Your task to perform on an android device: What's on the menu at IHOP? Image 0: 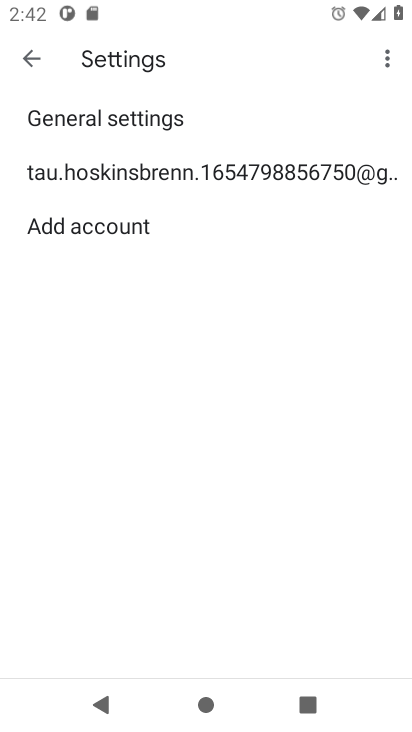
Step 0: press home button
Your task to perform on an android device: What's on the menu at IHOP? Image 1: 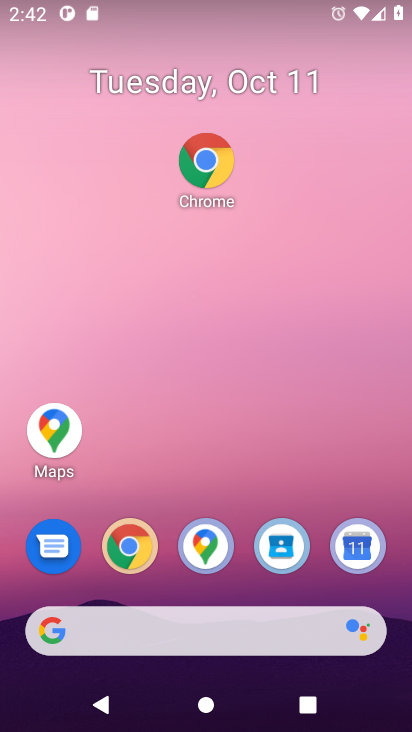
Step 1: click (212, 168)
Your task to perform on an android device: What's on the menu at IHOP? Image 2: 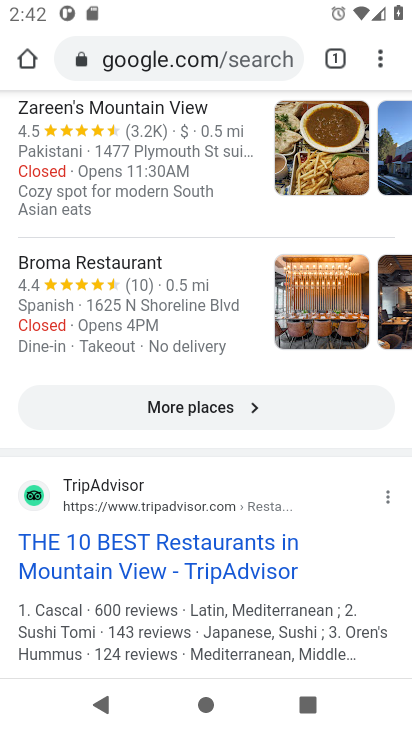
Step 2: click (210, 61)
Your task to perform on an android device: What's on the menu at IHOP? Image 3: 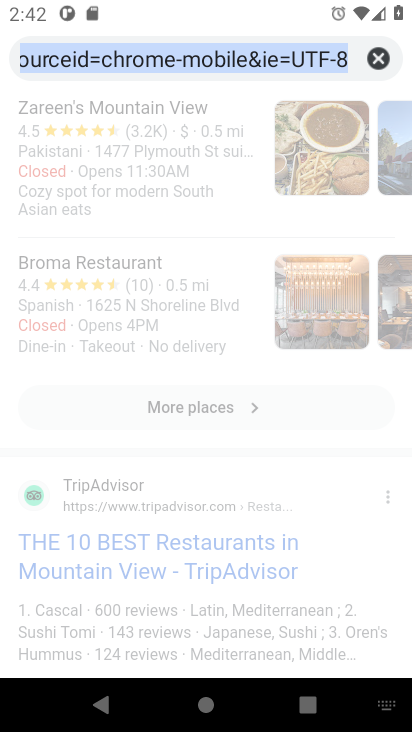
Step 3: type "IHOP"
Your task to perform on an android device: What's on the menu at IHOP? Image 4: 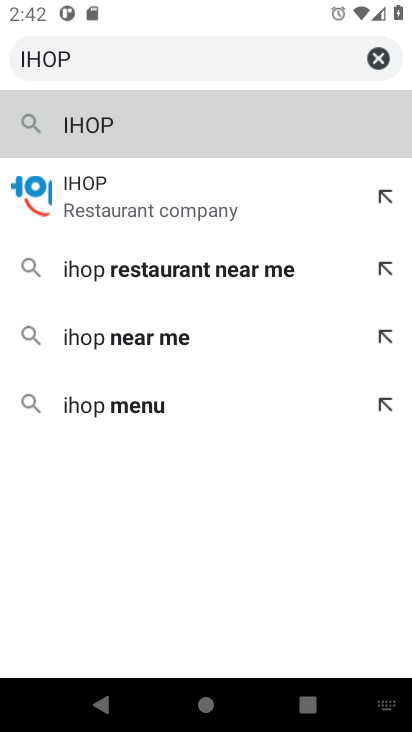
Step 4: press enter
Your task to perform on an android device: What's on the menu at IHOP? Image 5: 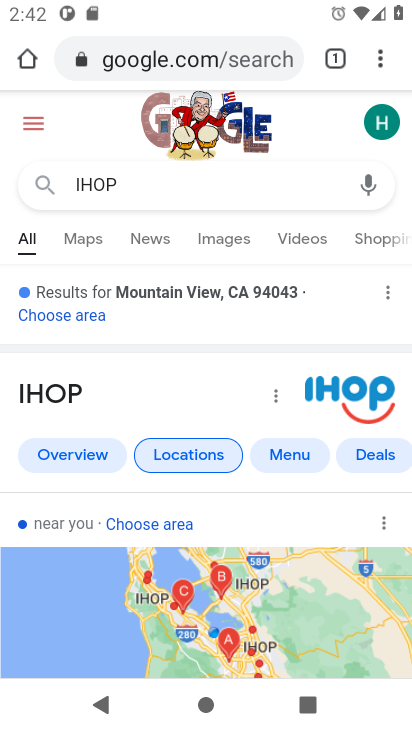
Step 5: drag from (277, 500) to (281, 179)
Your task to perform on an android device: What's on the menu at IHOP? Image 6: 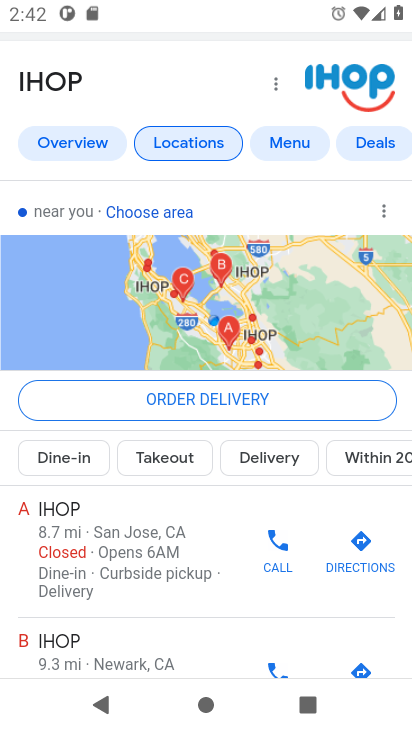
Step 6: drag from (230, 604) to (246, 224)
Your task to perform on an android device: What's on the menu at IHOP? Image 7: 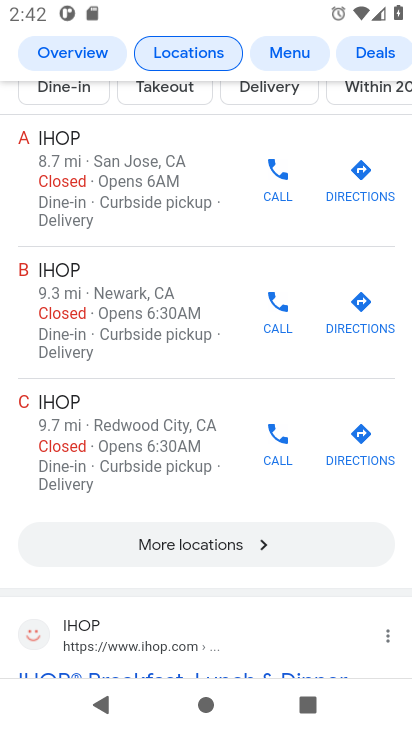
Step 7: drag from (245, 613) to (236, 229)
Your task to perform on an android device: What's on the menu at IHOP? Image 8: 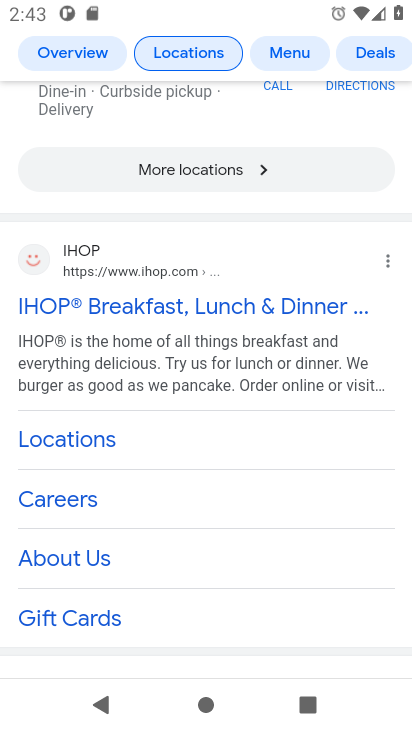
Step 8: drag from (254, 566) to (277, 267)
Your task to perform on an android device: What's on the menu at IHOP? Image 9: 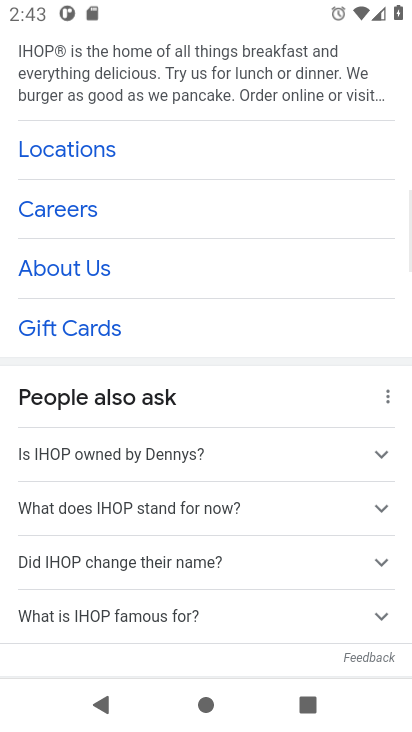
Step 9: drag from (258, 560) to (282, 257)
Your task to perform on an android device: What's on the menu at IHOP? Image 10: 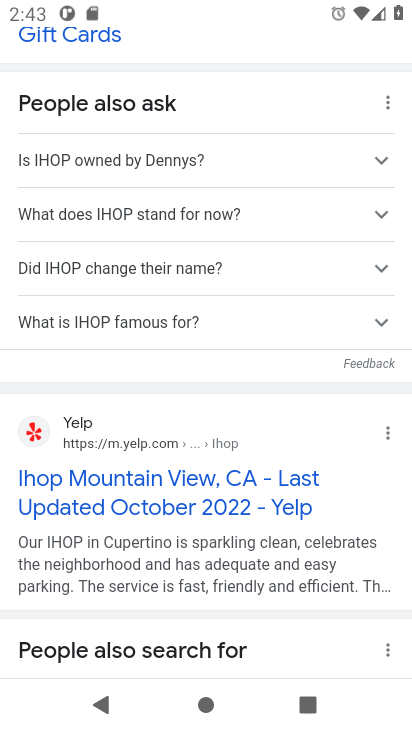
Step 10: drag from (281, 259) to (289, 608)
Your task to perform on an android device: What's on the menu at IHOP? Image 11: 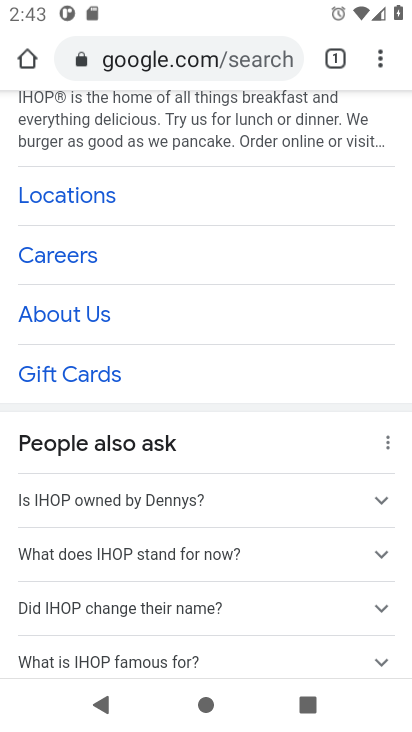
Step 11: drag from (193, 151) to (229, 560)
Your task to perform on an android device: What's on the menu at IHOP? Image 12: 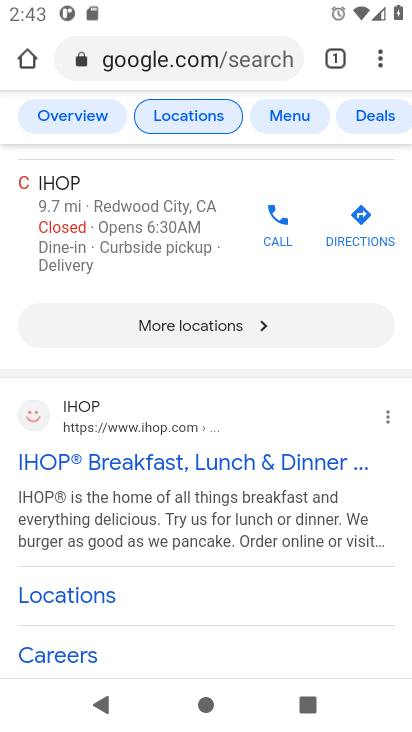
Step 12: drag from (196, 339) to (204, 576)
Your task to perform on an android device: What's on the menu at IHOP? Image 13: 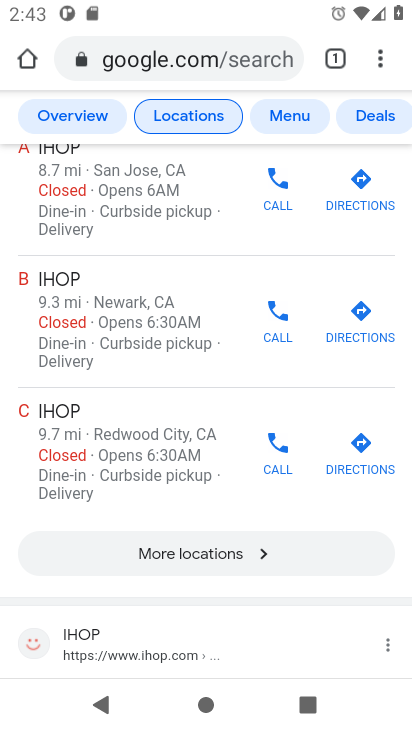
Step 13: drag from (163, 288) to (175, 564)
Your task to perform on an android device: What's on the menu at IHOP? Image 14: 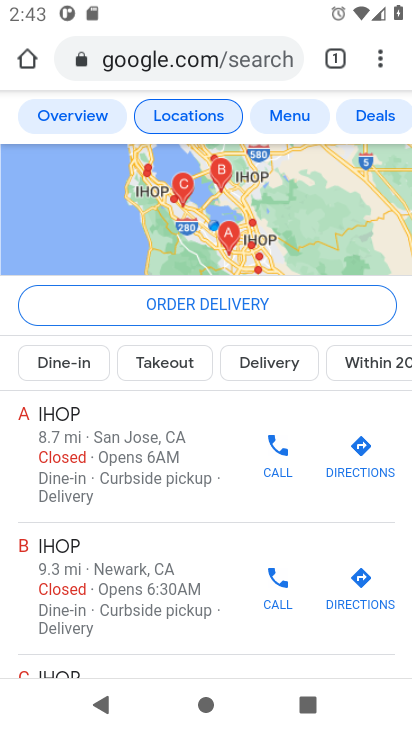
Step 14: click (290, 121)
Your task to perform on an android device: What's on the menu at IHOP? Image 15: 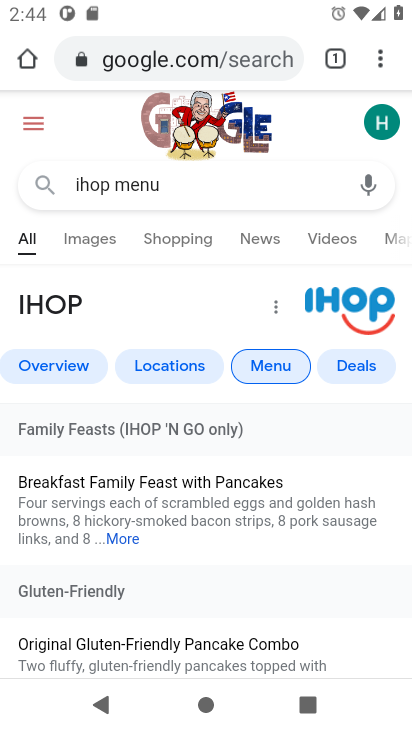
Step 15: drag from (198, 512) to (201, 197)
Your task to perform on an android device: What's on the menu at IHOP? Image 16: 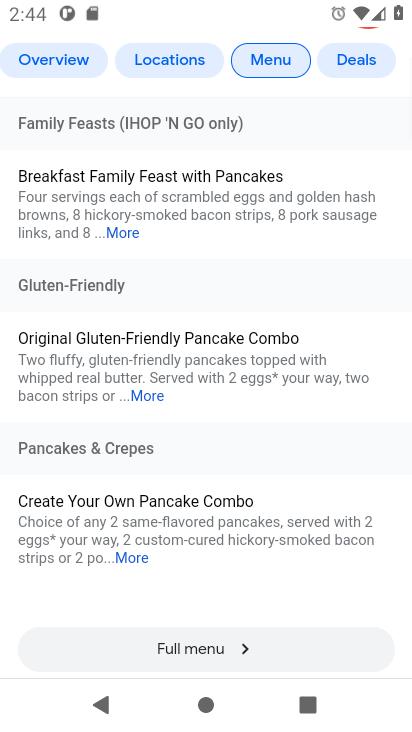
Step 16: click (236, 574)
Your task to perform on an android device: What's on the menu at IHOP? Image 17: 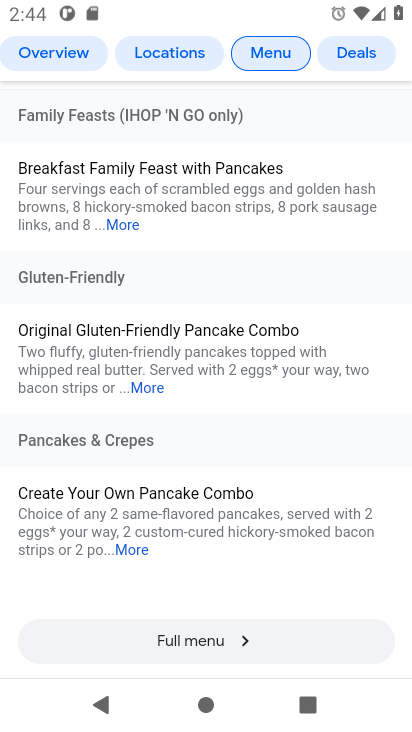
Step 17: click (229, 643)
Your task to perform on an android device: What's on the menu at IHOP? Image 18: 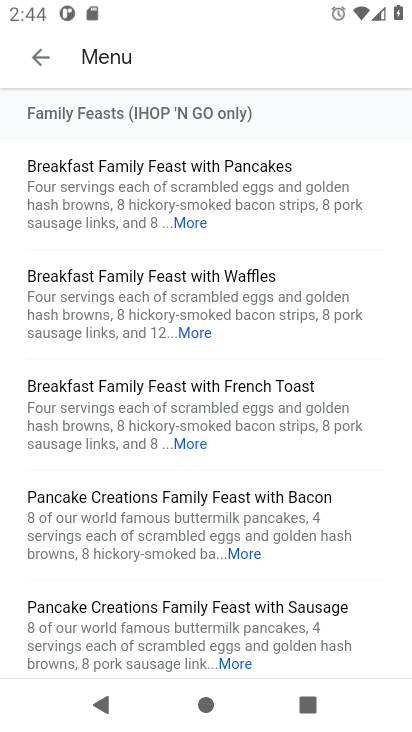
Step 18: task complete